Your task to perform on an android device: Open Yahoo.com Image 0: 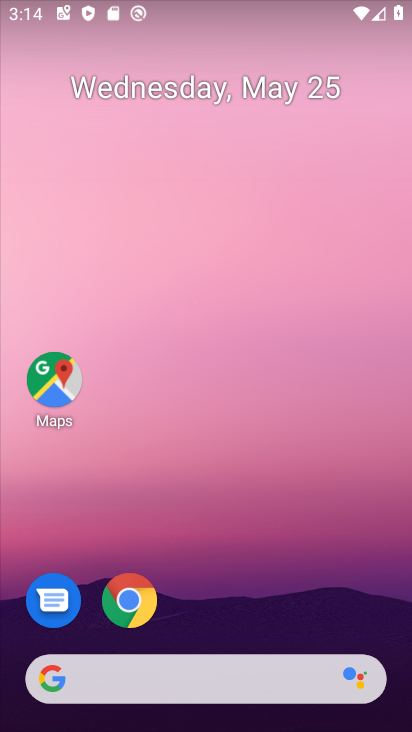
Step 0: click (123, 595)
Your task to perform on an android device: Open Yahoo.com Image 1: 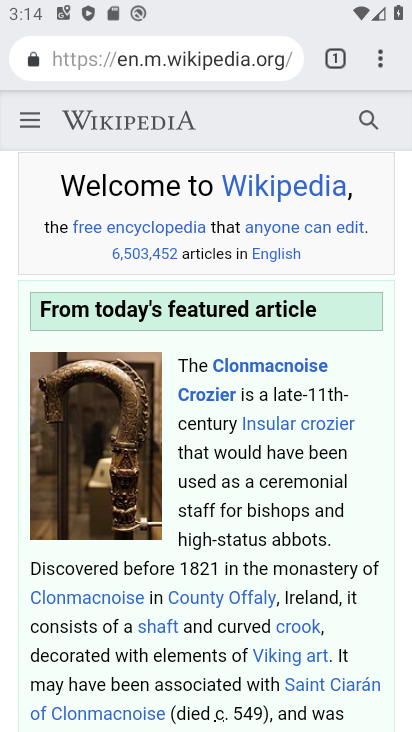
Step 1: click (342, 57)
Your task to perform on an android device: Open Yahoo.com Image 2: 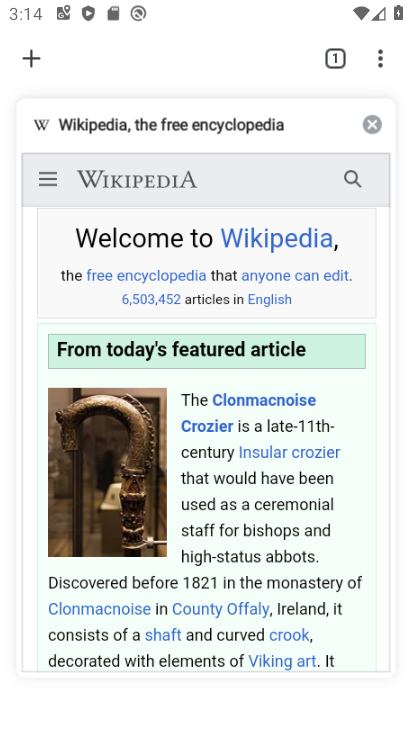
Step 2: click (369, 121)
Your task to perform on an android device: Open Yahoo.com Image 3: 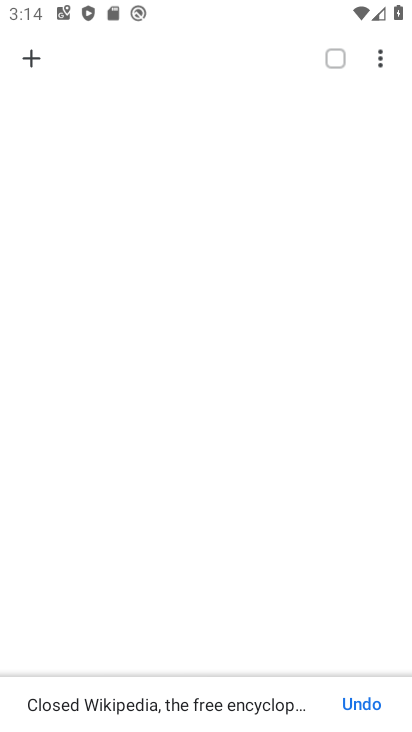
Step 3: click (28, 58)
Your task to perform on an android device: Open Yahoo.com Image 4: 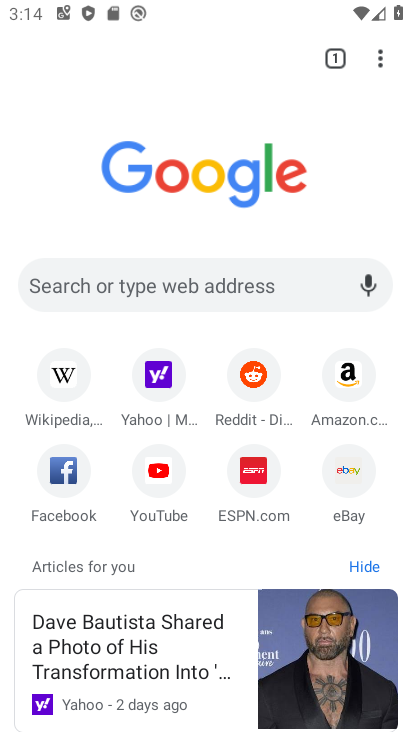
Step 4: click (145, 366)
Your task to perform on an android device: Open Yahoo.com Image 5: 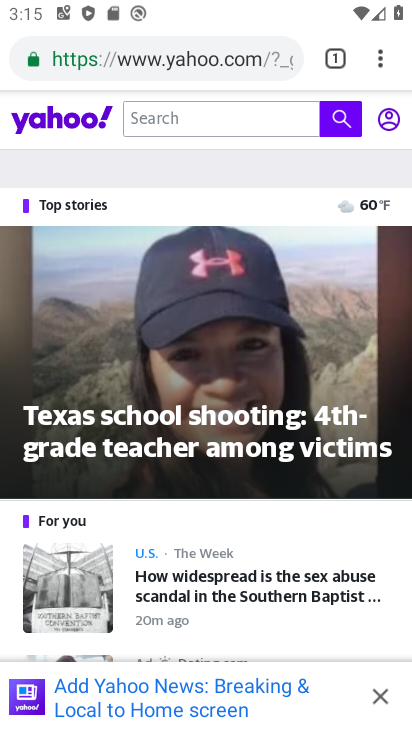
Step 5: task complete